Your task to perform on an android device: turn on notifications settings in the gmail app Image 0: 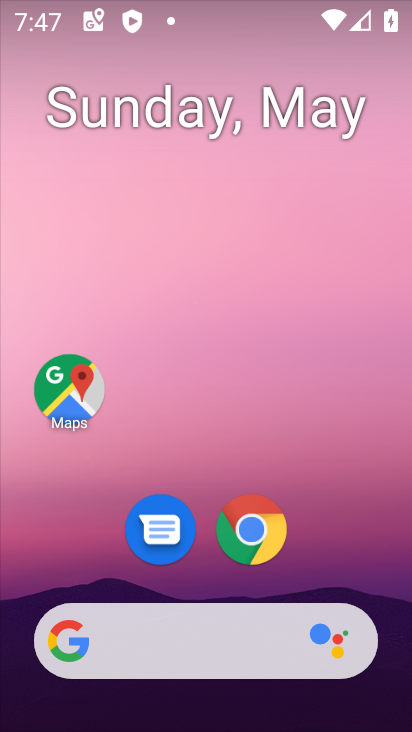
Step 0: drag from (345, 602) to (312, 9)
Your task to perform on an android device: turn on notifications settings in the gmail app Image 1: 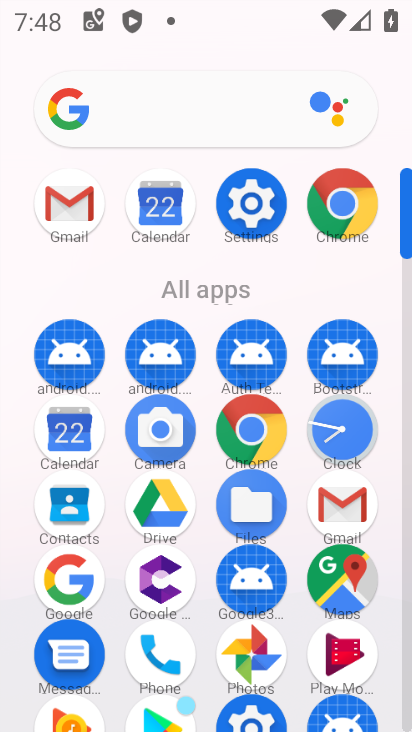
Step 1: click (65, 214)
Your task to perform on an android device: turn on notifications settings in the gmail app Image 2: 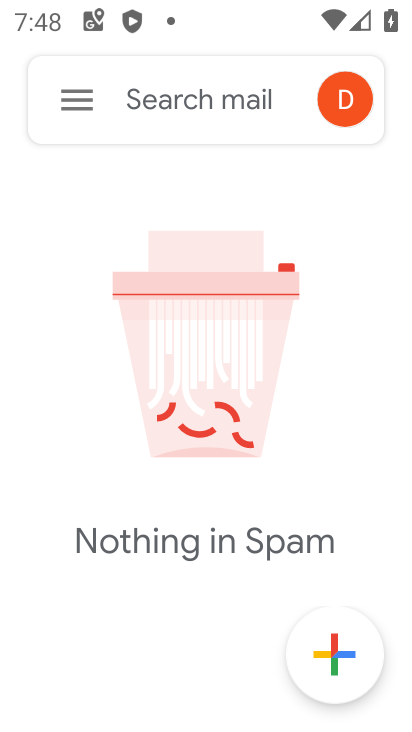
Step 2: click (73, 109)
Your task to perform on an android device: turn on notifications settings in the gmail app Image 3: 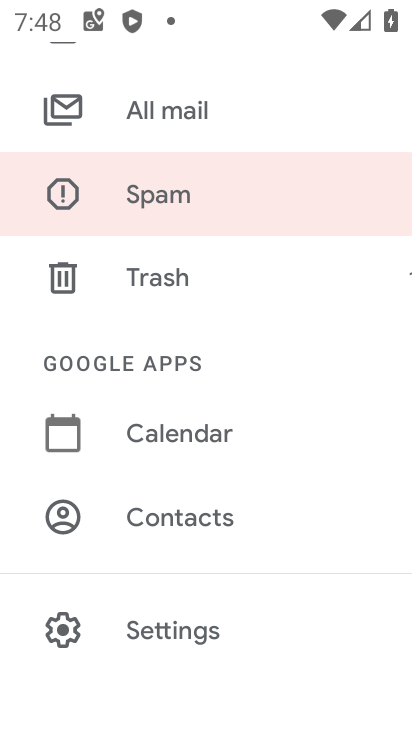
Step 3: click (194, 639)
Your task to perform on an android device: turn on notifications settings in the gmail app Image 4: 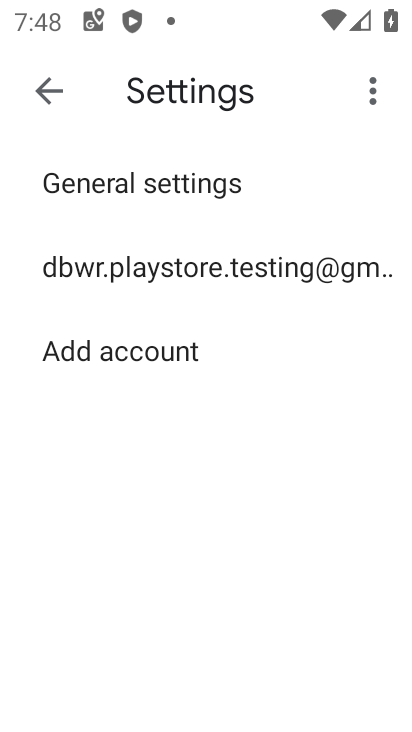
Step 4: click (131, 193)
Your task to perform on an android device: turn on notifications settings in the gmail app Image 5: 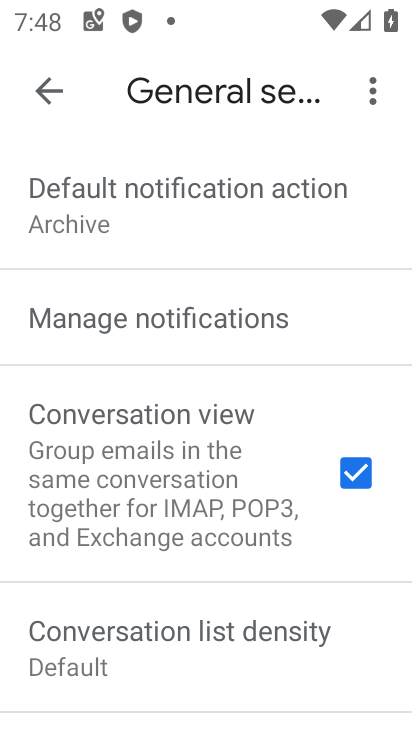
Step 5: click (133, 316)
Your task to perform on an android device: turn on notifications settings in the gmail app Image 6: 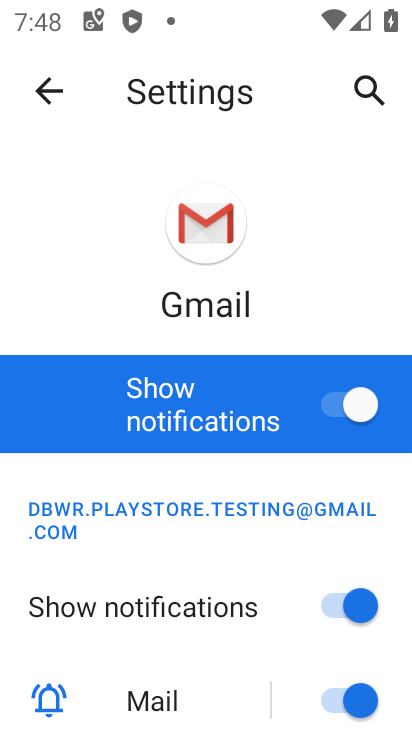
Step 6: task complete